Your task to perform on an android device: see creations saved in the google photos Image 0: 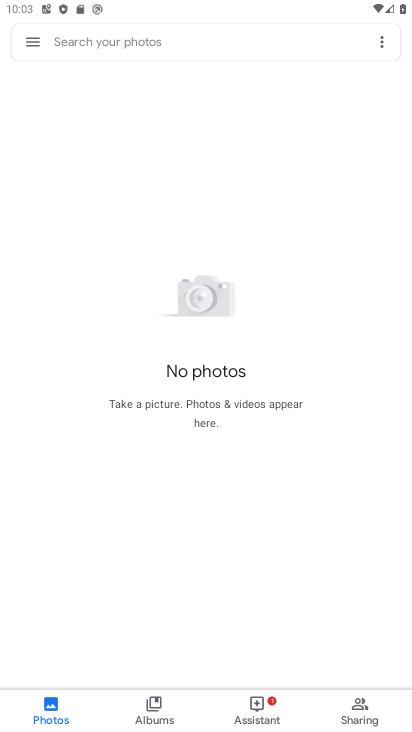
Step 0: press home button
Your task to perform on an android device: see creations saved in the google photos Image 1: 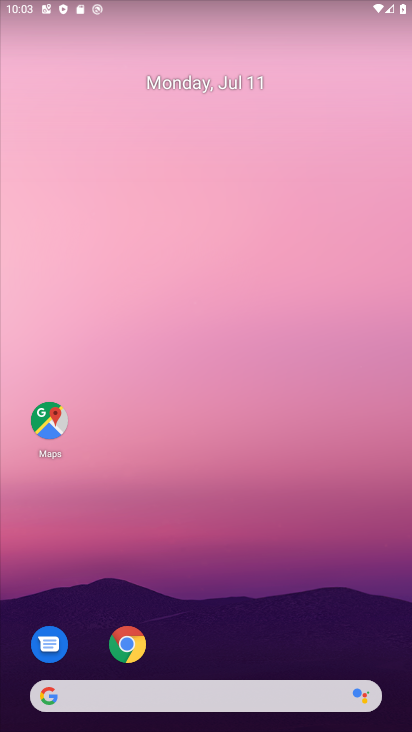
Step 1: drag from (217, 639) to (218, 114)
Your task to perform on an android device: see creations saved in the google photos Image 2: 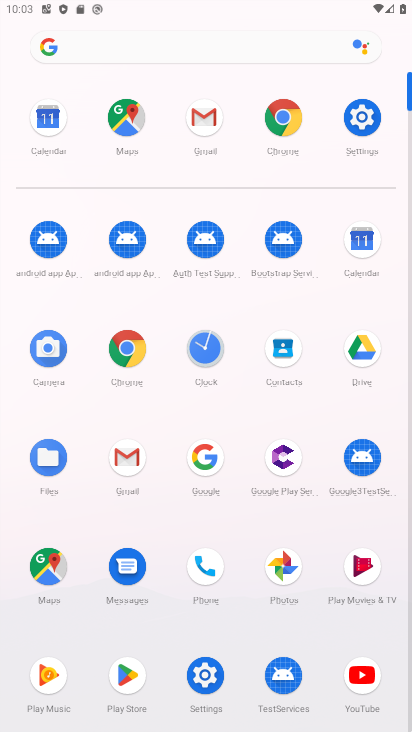
Step 2: click (282, 568)
Your task to perform on an android device: see creations saved in the google photos Image 3: 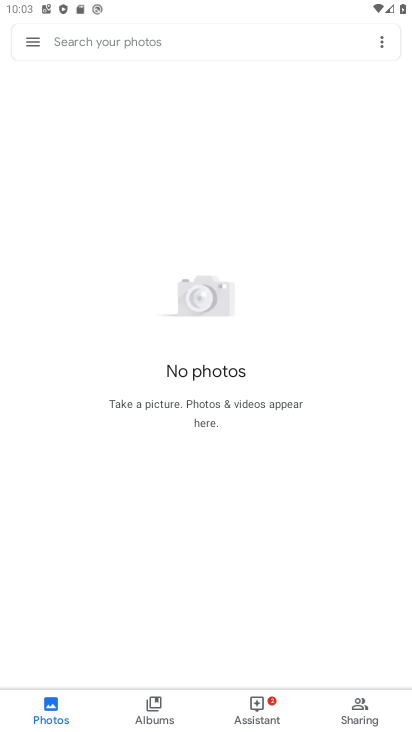
Step 3: click (27, 39)
Your task to perform on an android device: see creations saved in the google photos Image 4: 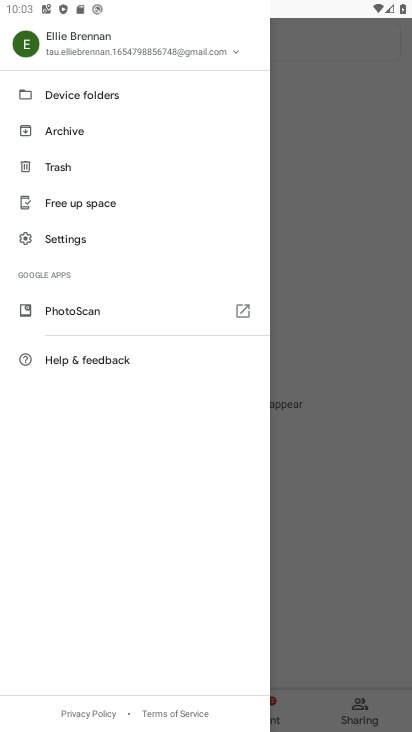
Step 4: click (69, 233)
Your task to perform on an android device: see creations saved in the google photos Image 5: 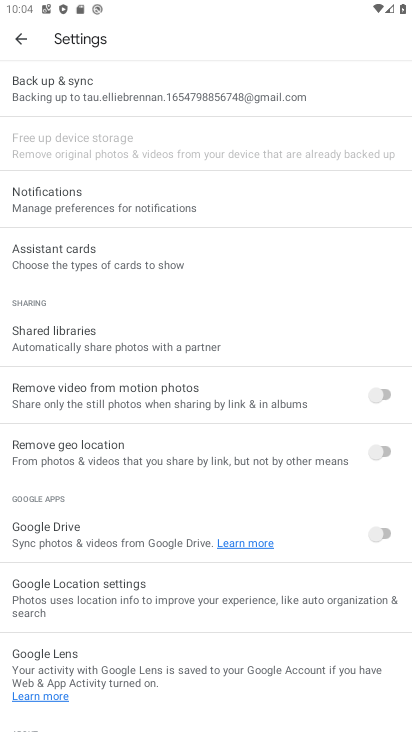
Step 5: click (21, 30)
Your task to perform on an android device: see creations saved in the google photos Image 6: 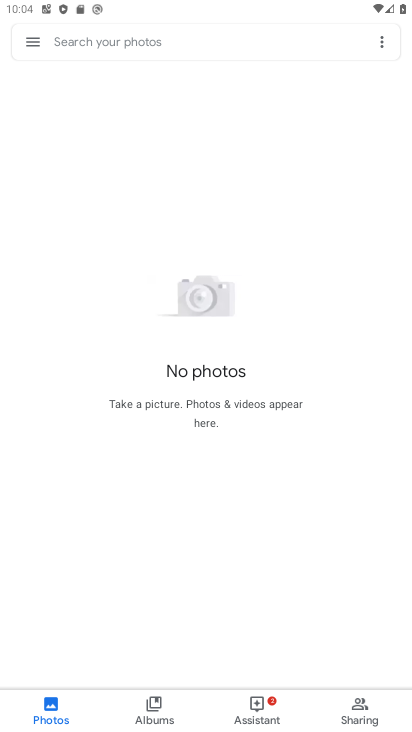
Step 6: click (92, 40)
Your task to perform on an android device: see creations saved in the google photos Image 7: 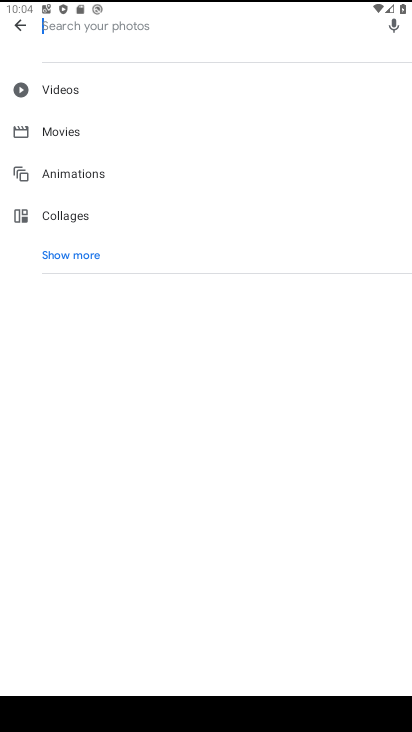
Step 7: click (74, 252)
Your task to perform on an android device: see creations saved in the google photos Image 8: 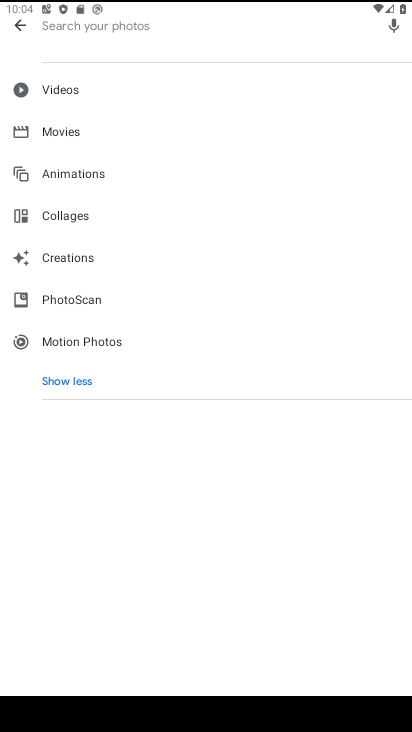
Step 8: click (76, 259)
Your task to perform on an android device: see creations saved in the google photos Image 9: 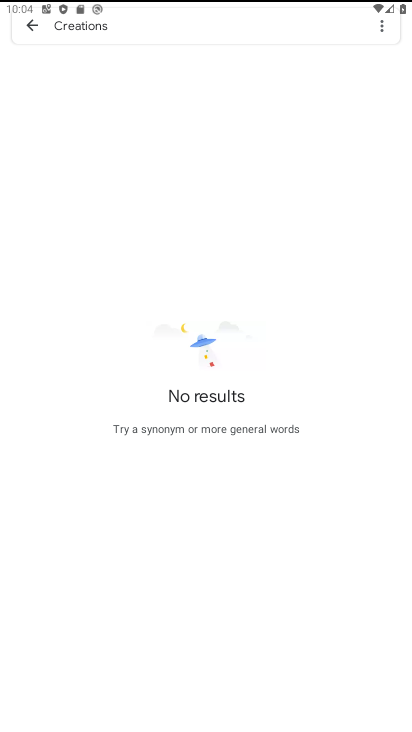
Step 9: task complete